Your task to perform on an android device: see sites visited before in the chrome app Image 0: 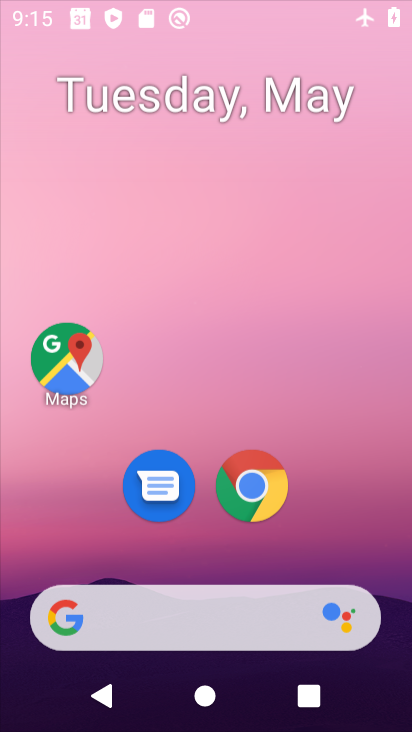
Step 0: click (252, 184)
Your task to perform on an android device: see sites visited before in the chrome app Image 1: 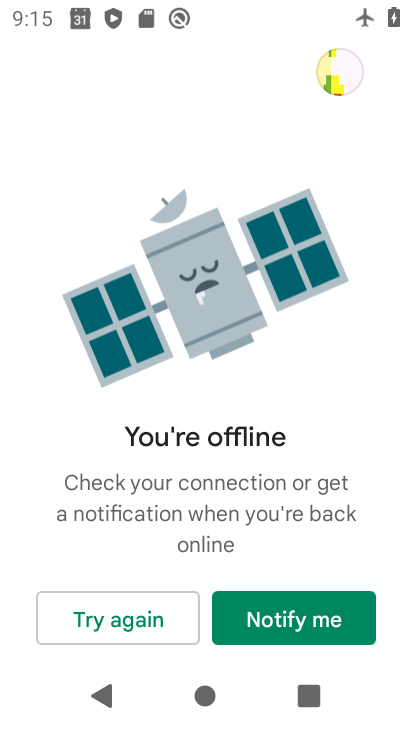
Step 1: drag from (259, 511) to (276, 281)
Your task to perform on an android device: see sites visited before in the chrome app Image 2: 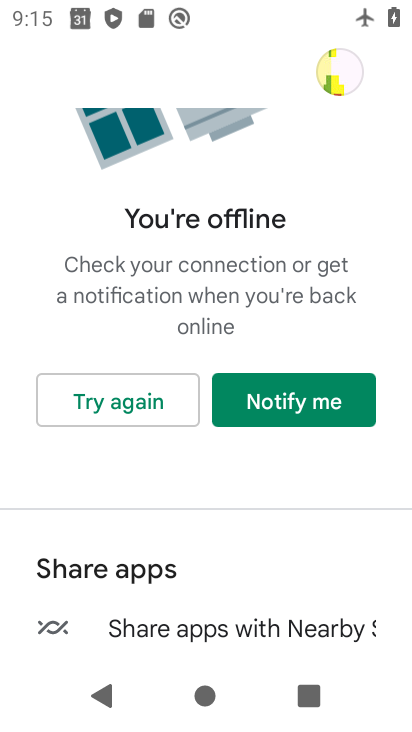
Step 2: drag from (230, 515) to (246, 204)
Your task to perform on an android device: see sites visited before in the chrome app Image 3: 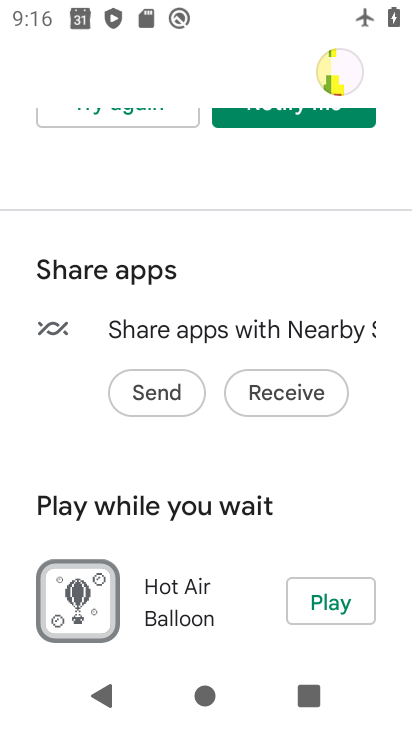
Step 3: drag from (167, 560) to (232, 230)
Your task to perform on an android device: see sites visited before in the chrome app Image 4: 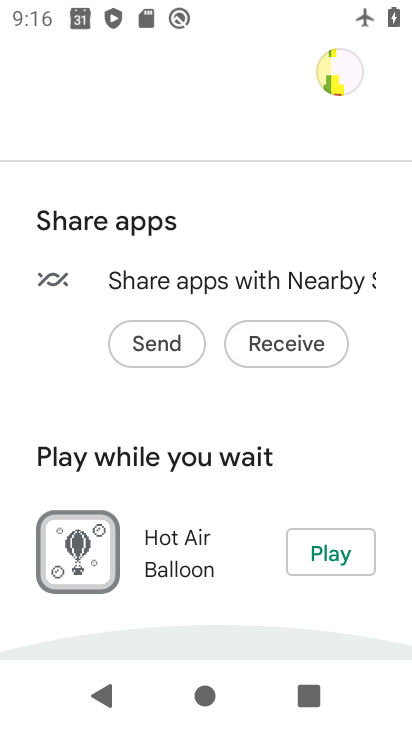
Step 4: drag from (292, 223) to (292, 727)
Your task to perform on an android device: see sites visited before in the chrome app Image 5: 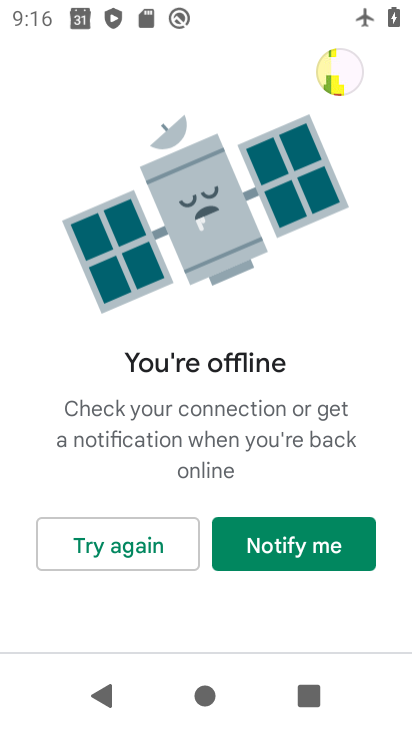
Step 5: drag from (209, 555) to (303, 165)
Your task to perform on an android device: see sites visited before in the chrome app Image 6: 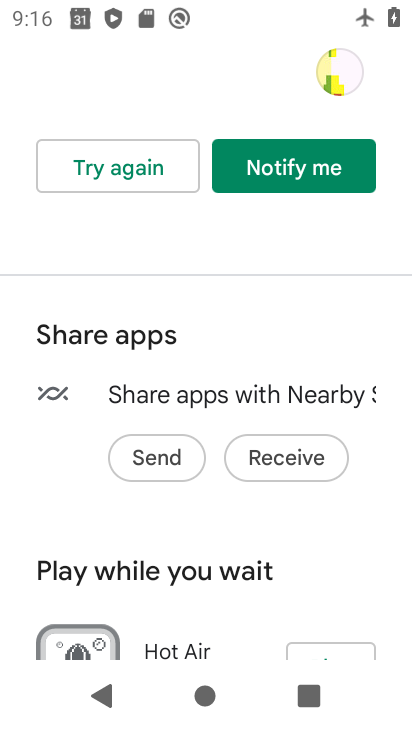
Step 6: drag from (209, 353) to (248, 248)
Your task to perform on an android device: see sites visited before in the chrome app Image 7: 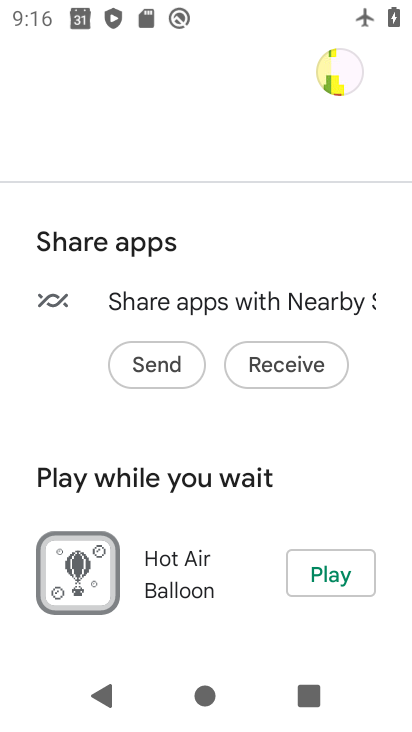
Step 7: press home button
Your task to perform on an android device: see sites visited before in the chrome app Image 8: 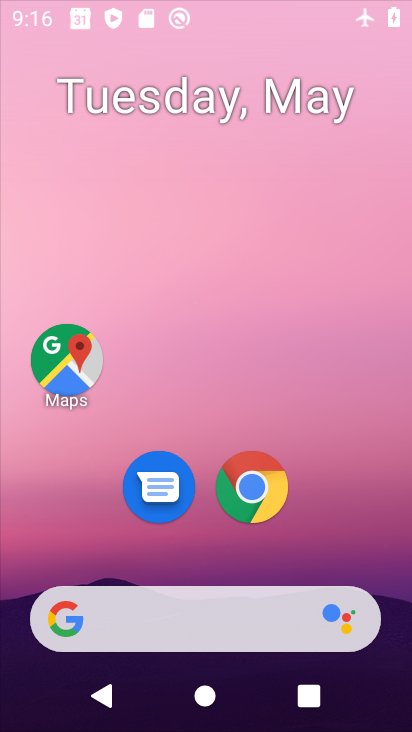
Step 8: drag from (234, 511) to (252, 268)
Your task to perform on an android device: see sites visited before in the chrome app Image 9: 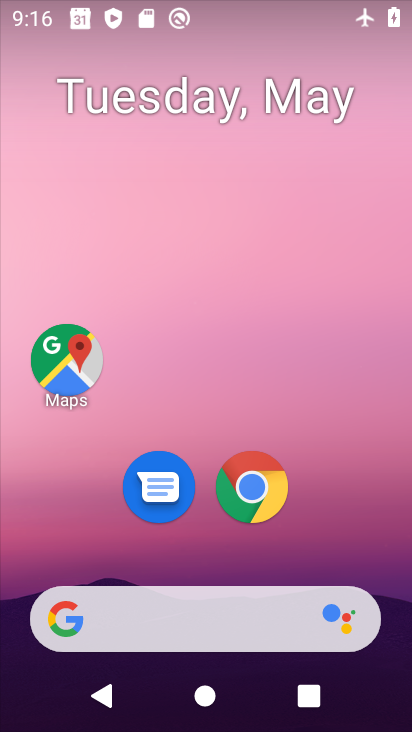
Step 9: click (244, 479)
Your task to perform on an android device: see sites visited before in the chrome app Image 10: 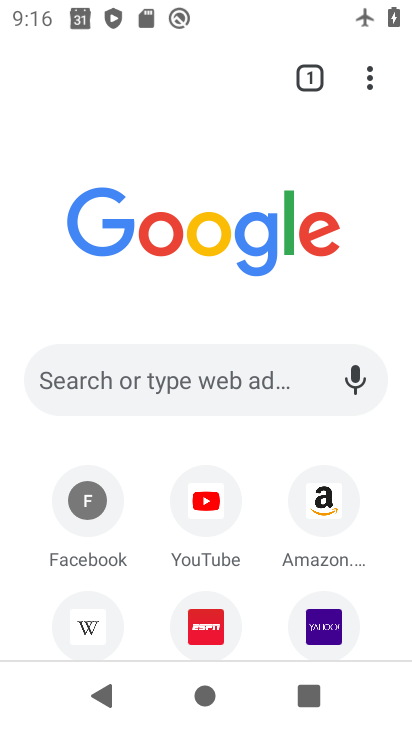
Step 10: drag from (259, 508) to (218, 136)
Your task to perform on an android device: see sites visited before in the chrome app Image 11: 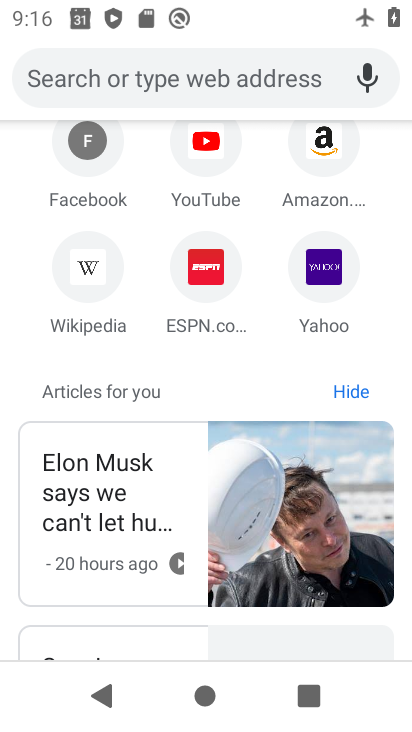
Step 11: drag from (273, 153) to (249, 709)
Your task to perform on an android device: see sites visited before in the chrome app Image 12: 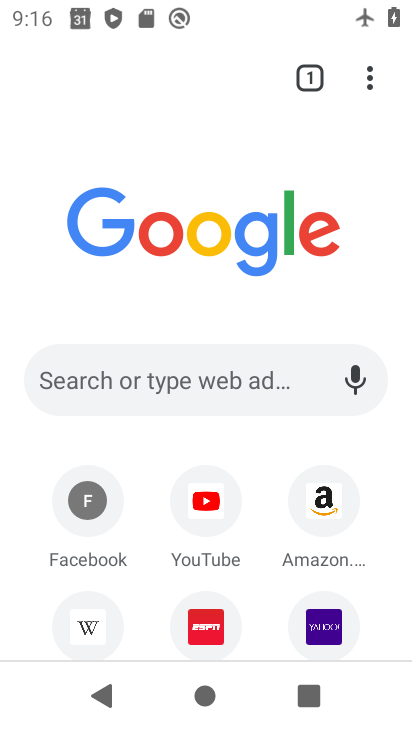
Step 12: click (371, 60)
Your task to perform on an android device: see sites visited before in the chrome app Image 13: 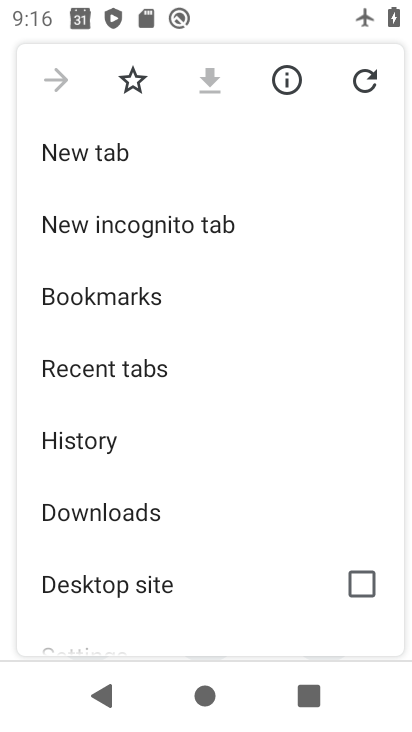
Step 13: drag from (180, 515) to (281, 66)
Your task to perform on an android device: see sites visited before in the chrome app Image 14: 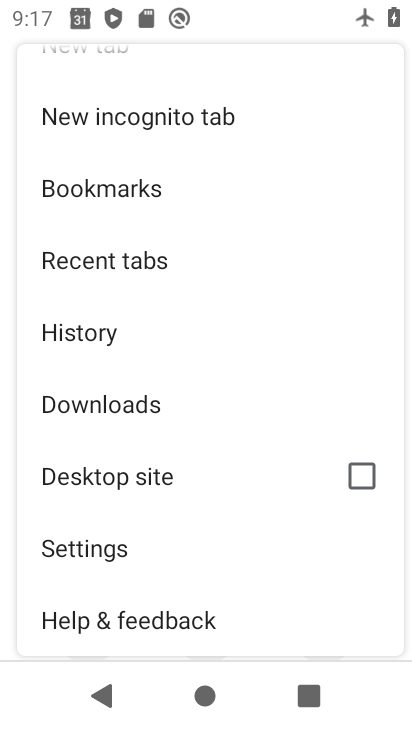
Step 14: click (182, 179)
Your task to perform on an android device: see sites visited before in the chrome app Image 15: 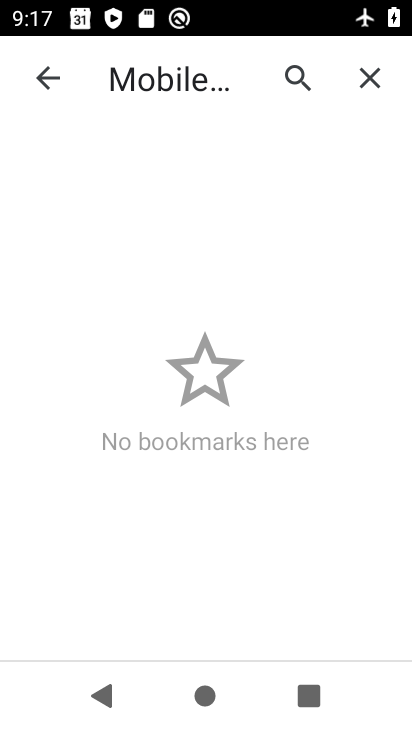
Step 15: task complete